Your task to perform on an android device: check battery use Image 0: 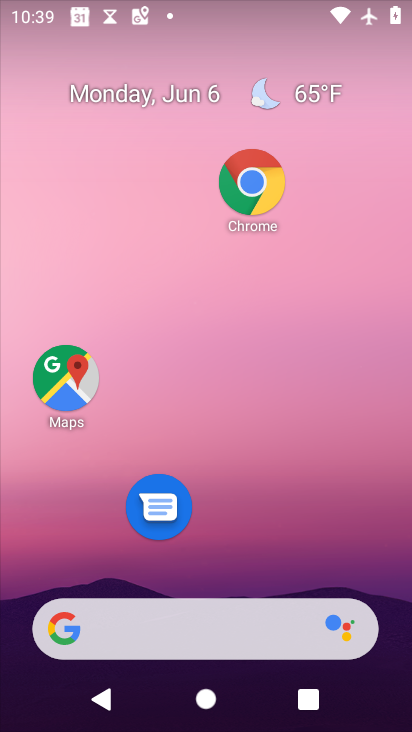
Step 0: drag from (231, 579) to (185, 190)
Your task to perform on an android device: check battery use Image 1: 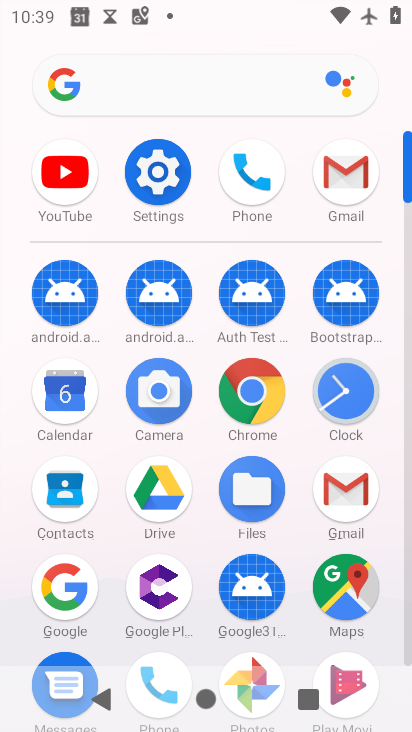
Step 1: drag from (171, 120) to (157, 161)
Your task to perform on an android device: check battery use Image 2: 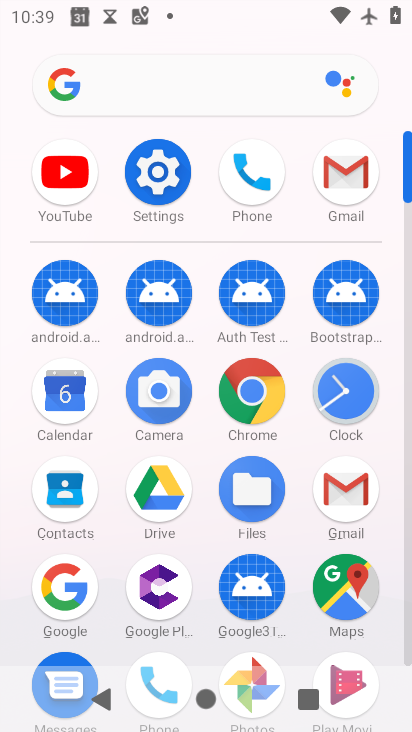
Step 2: click (157, 162)
Your task to perform on an android device: check battery use Image 3: 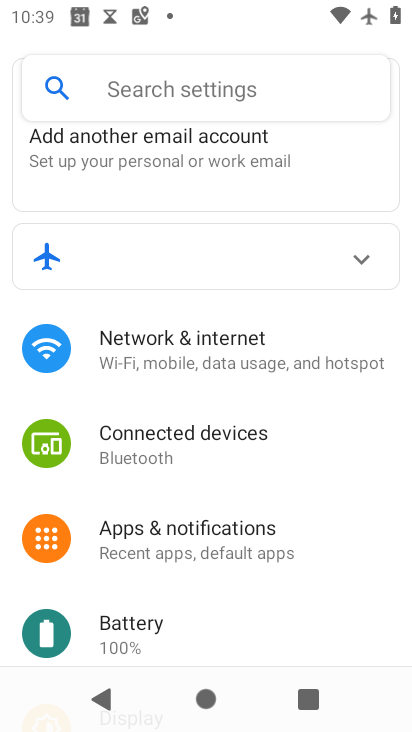
Step 3: click (138, 619)
Your task to perform on an android device: check battery use Image 4: 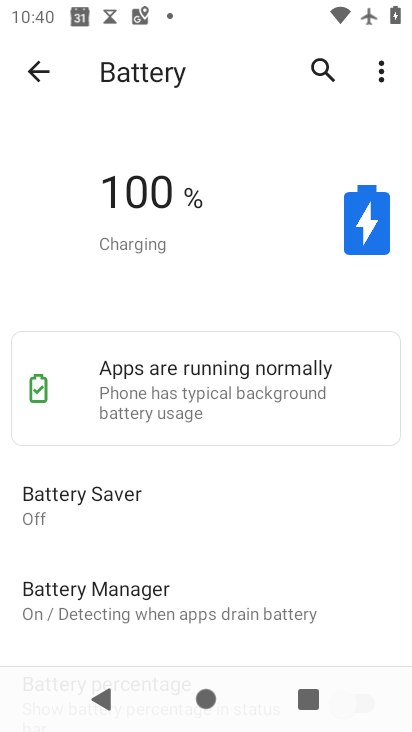
Step 4: task complete